Your task to perform on an android device: toggle priority inbox in the gmail app Image 0: 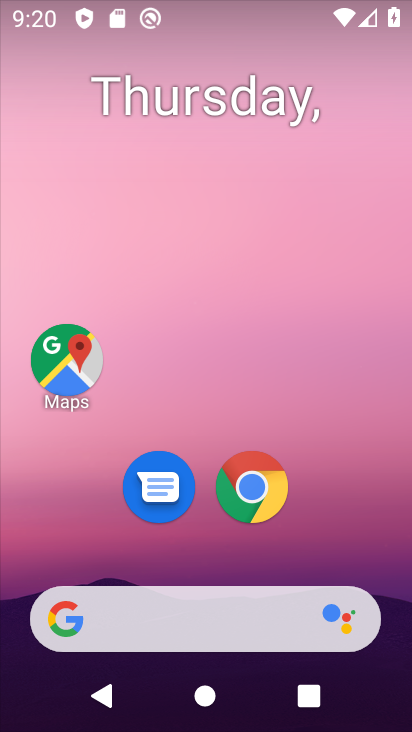
Step 0: drag from (209, 426) to (163, 131)
Your task to perform on an android device: toggle priority inbox in the gmail app Image 1: 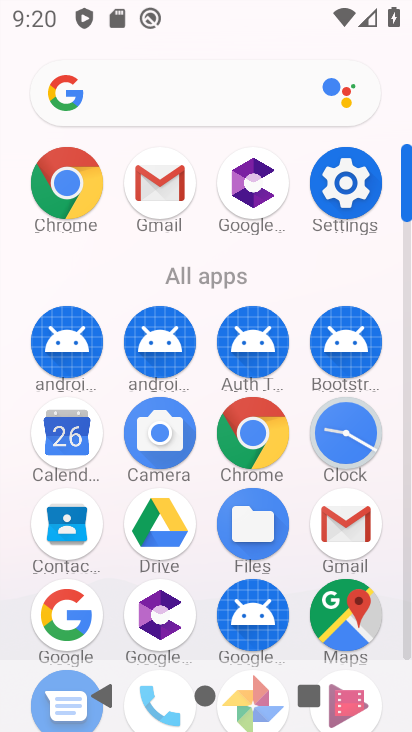
Step 1: click (176, 201)
Your task to perform on an android device: toggle priority inbox in the gmail app Image 2: 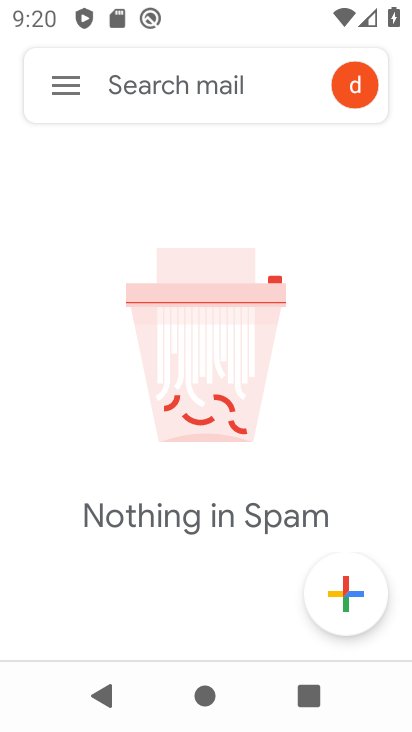
Step 2: click (58, 86)
Your task to perform on an android device: toggle priority inbox in the gmail app Image 3: 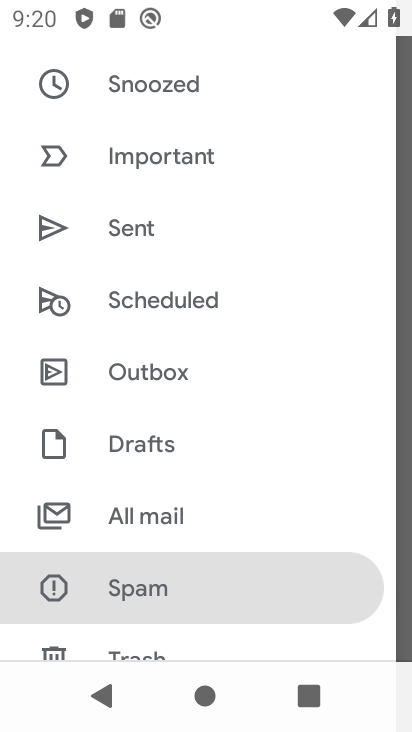
Step 3: drag from (218, 575) to (199, 121)
Your task to perform on an android device: toggle priority inbox in the gmail app Image 4: 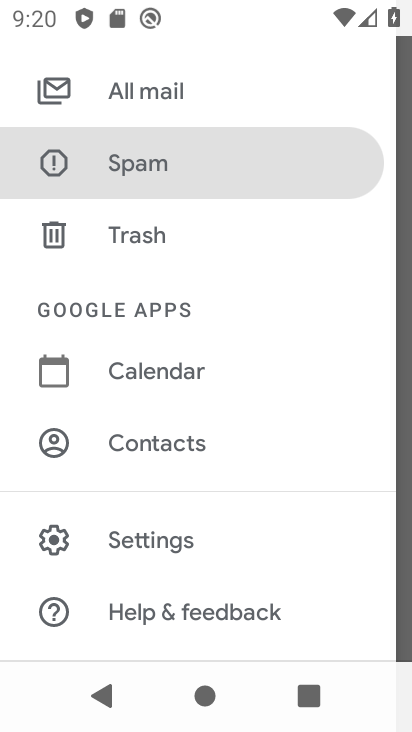
Step 4: click (144, 533)
Your task to perform on an android device: toggle priority inbox in the gmail app Image 5: 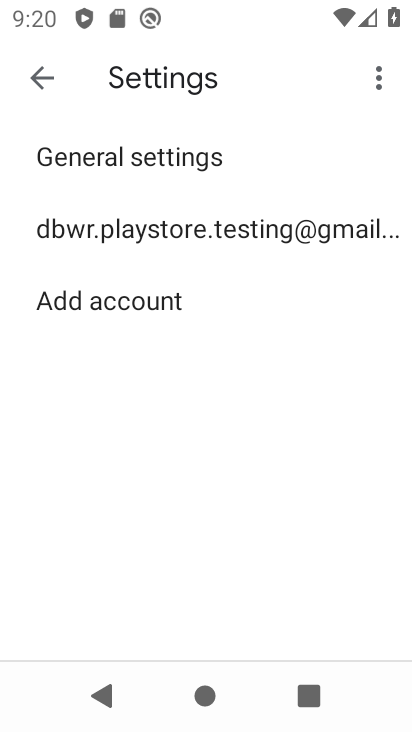
Step 5: click (217, 231)
Your task to perform on an android device: toggle priority inbox in the gmail app Image 6: 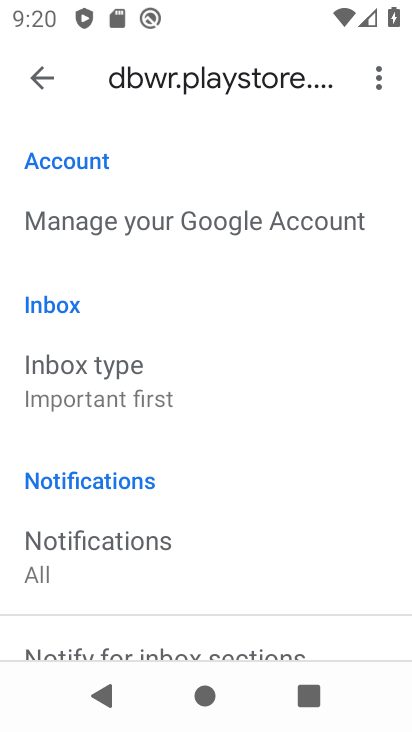
Step 6: click (133, 382)
Your task to perform on an android device: toggle priority inbox in the gmail app Image 7: 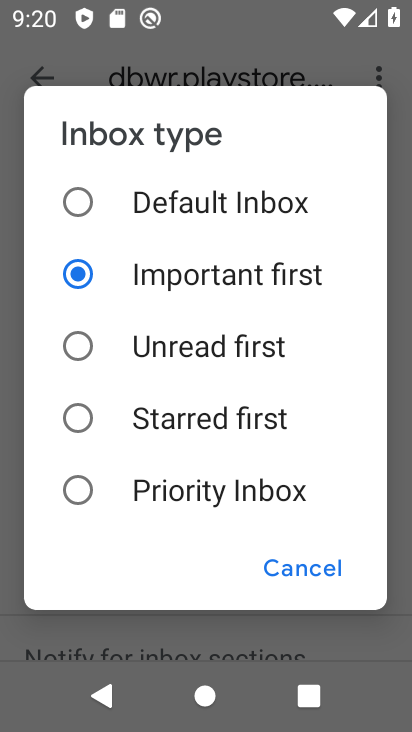
Step 7: click (73, 494)
Your task to perform on an android device: toggle priority inbox in the gmail app Image 8: 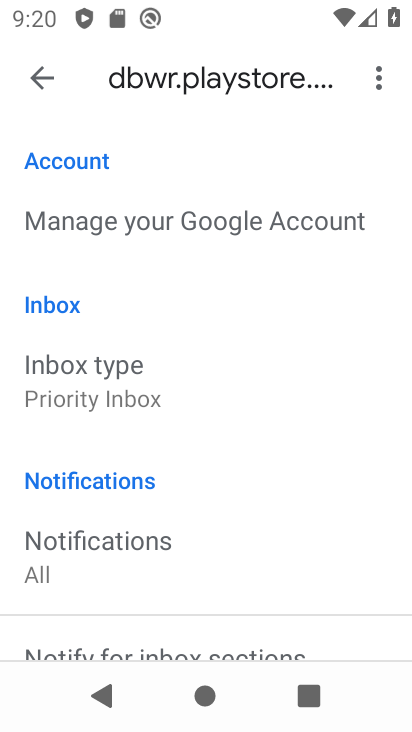
Step 8: task complete